Your task to perform on an android device: Open wifi settings Image 0: 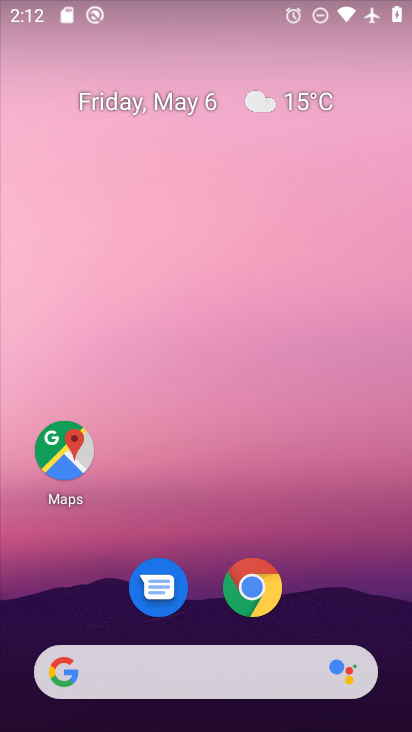
Step 0: drag from (327, 561) to (240, 87)
Your task to perform on an android device: Open wifi settings Image 1: 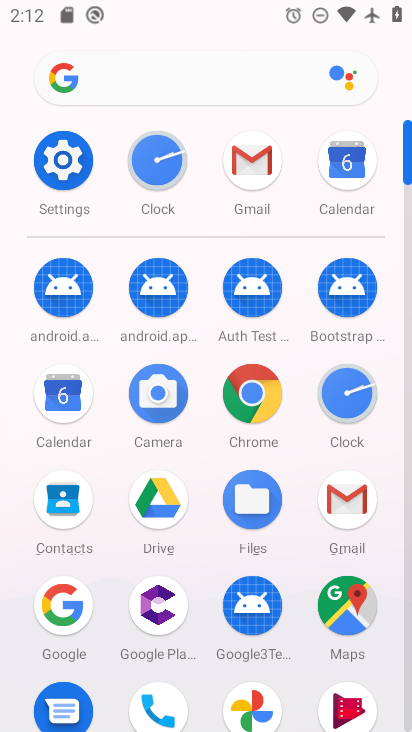
Step 1: click (62, 165)
Your task to perform on an android device: Open wifi settings Image 2: 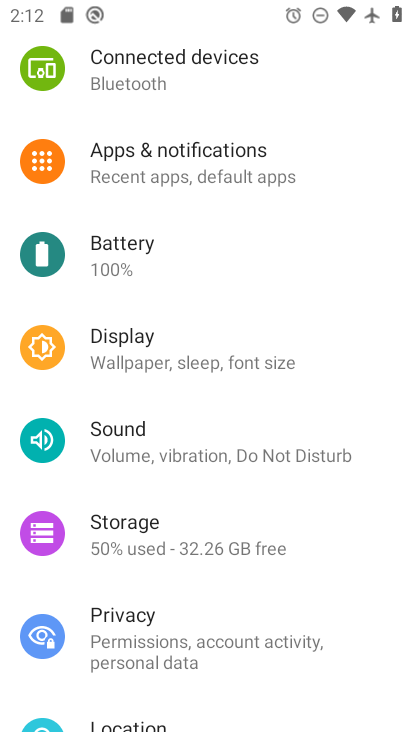
Step 2: drag from (195, 552) to (203, 688)
Your task to perform on an android device: Open wifi settings Image 3: 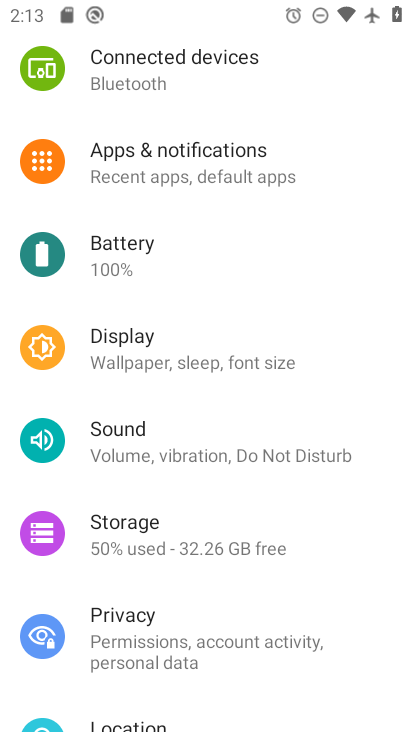
Step 3: drag from (229, 108) to (261, 540)
Your task to perform on an android device: Open wifi settings Image 4: 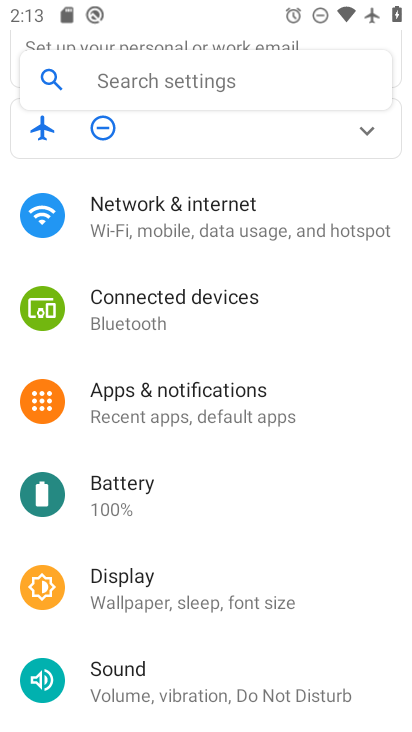
Step 4: drag from (201, 156) to (186, 608)
Your task to perform on an android device: Open wifi settings Image 5: 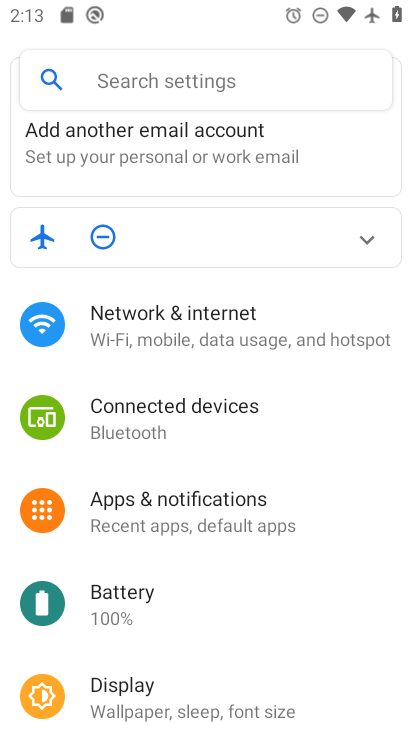
Step 5: click (185, 255)
Your task to perform on an android device: Open wifi settings Image 6: 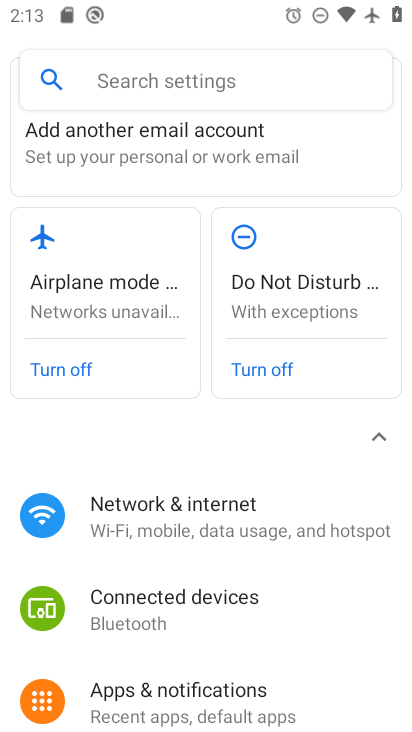
Step 6: click (184, 518)
Your task to perform on an android device: Open wifi settings Image 7: 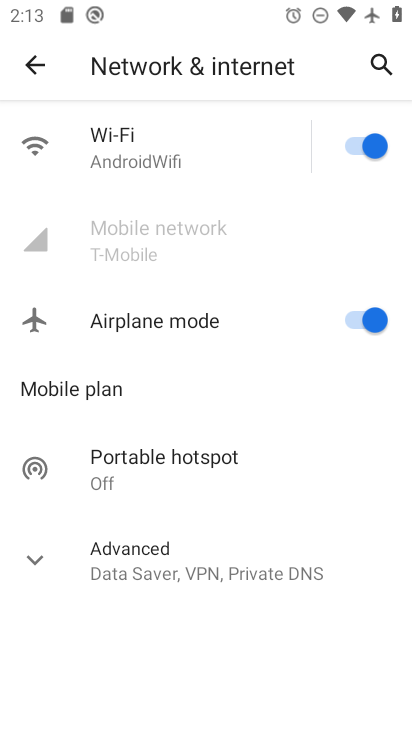
Step 7: click (127, 143)
Your task to perform on an android device: Open wifi settings Image 8: 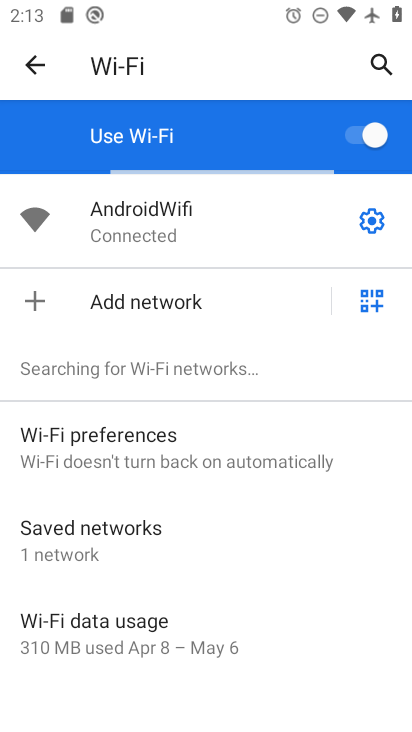
Step 8: task complete